Your task to perform on an android device: check data usage Image 0: 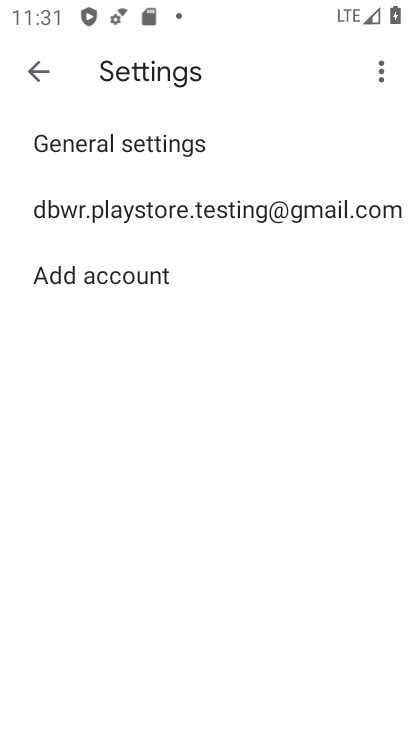
Step 0: press home button
Your task to perform on an android device: check data usage Image 1: 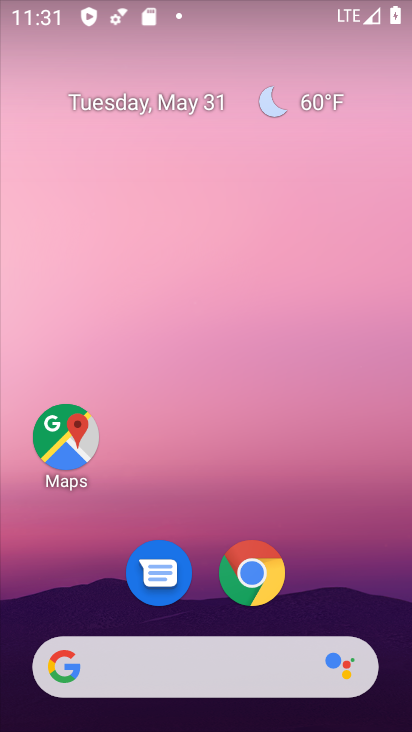
Step 1: drag from (192, 614) to (197, 150)
Your task to perform on an android device: check data usage Image 2: 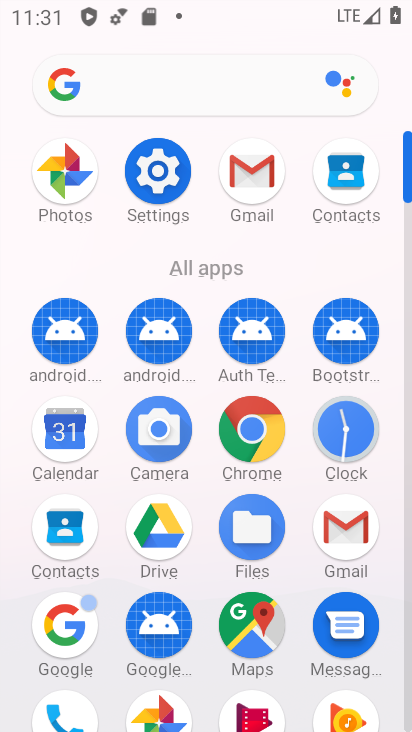
Step 2: click (176, 159)
Your task to perform on an android device: check data usage Image 3: 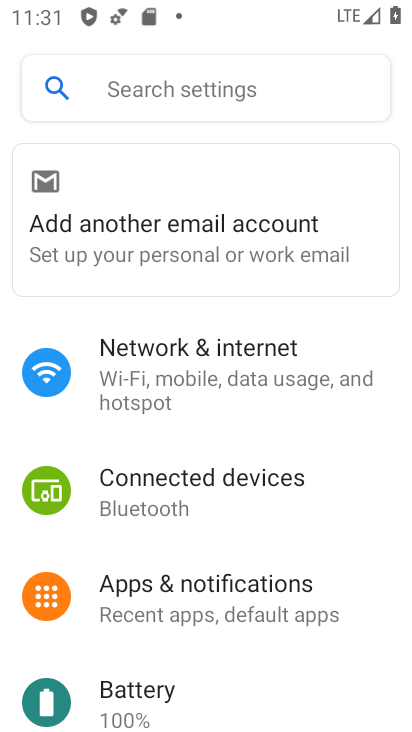
Step 3: click (153, 388)
Your task to perform on an android device: check data usage Image 4: 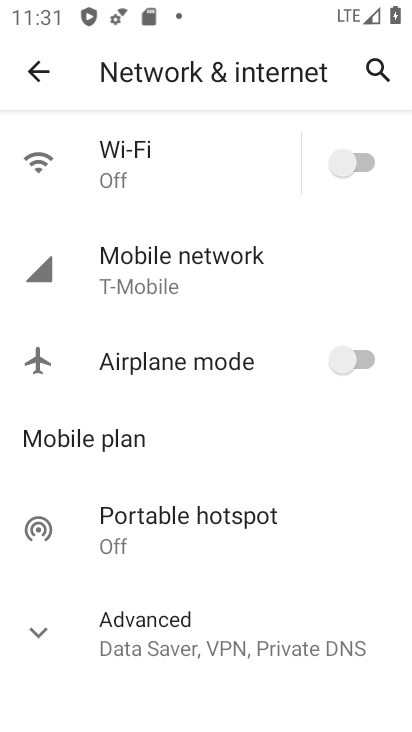
Step 4: click (163, 285)
Your task to perform on an android device: check data usage Image 5: 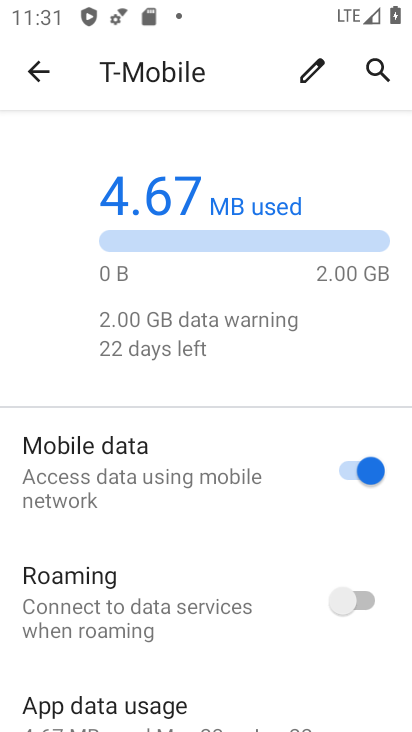
Step 5: drag from (241, 553) to (214, 257)
Your task to perform on an android device: check data usage Image 6: 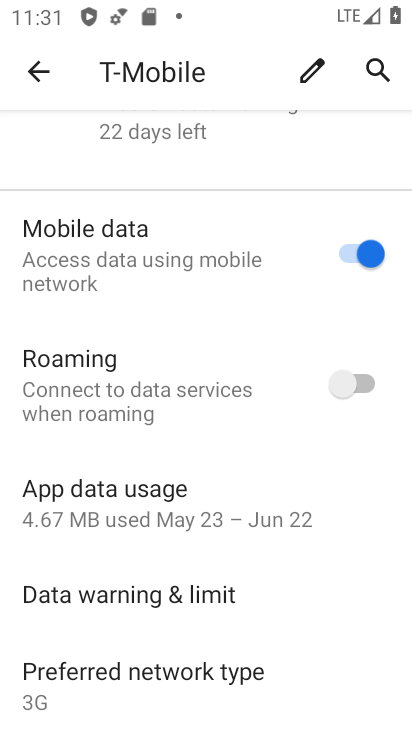
Step 6: click (169, 493)
Your task to perform on an android device: check data usage Image 7: 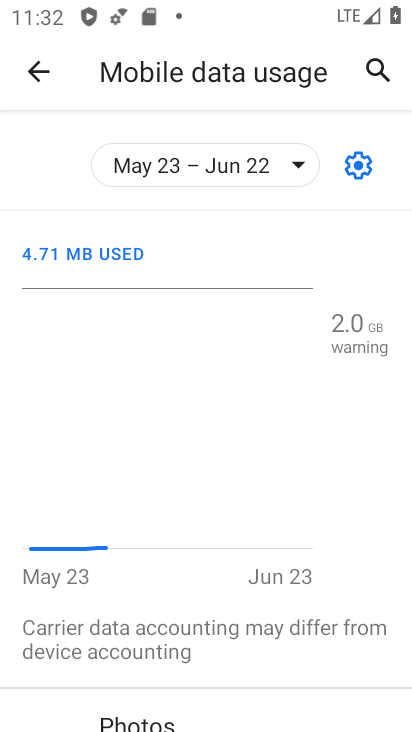
Step 7: task complete